Your task to perform on an android device: delete location history Image 0: 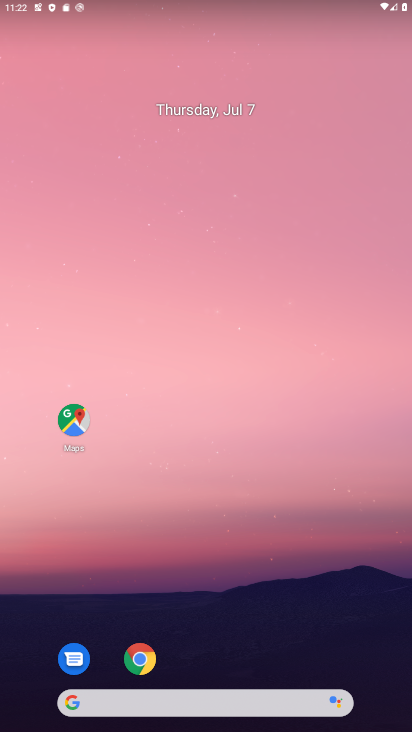
Step 0: click (72, 410)
Your task to perform on an android device: delete location history Image 1: 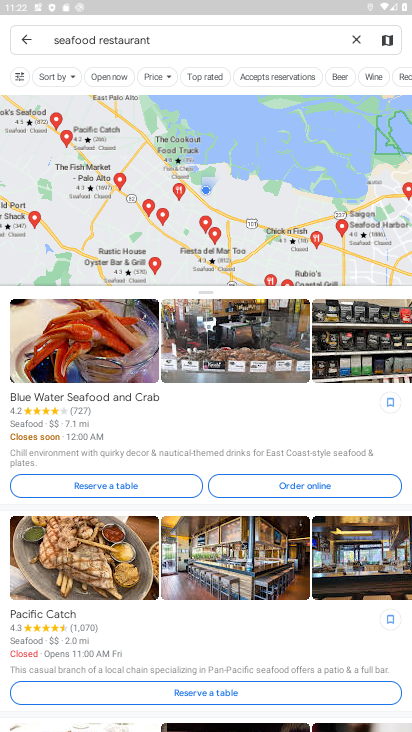
Step 1: click (27, 39)
Your task to perform on an android device: delete location history Image 2: 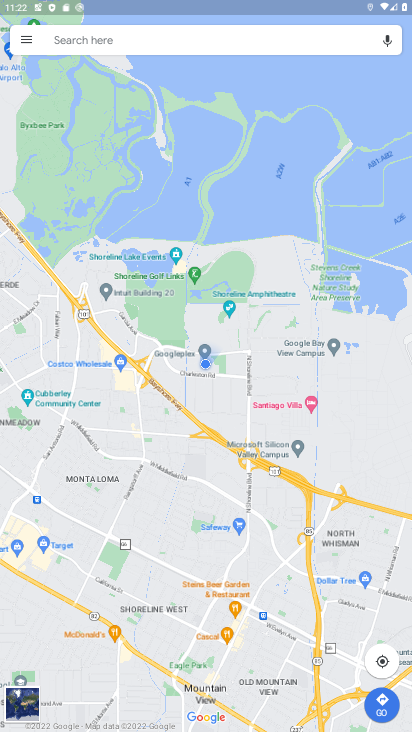
Step 2: click (31, 35)
Your task to perform on an android device: delete location history Image 3: 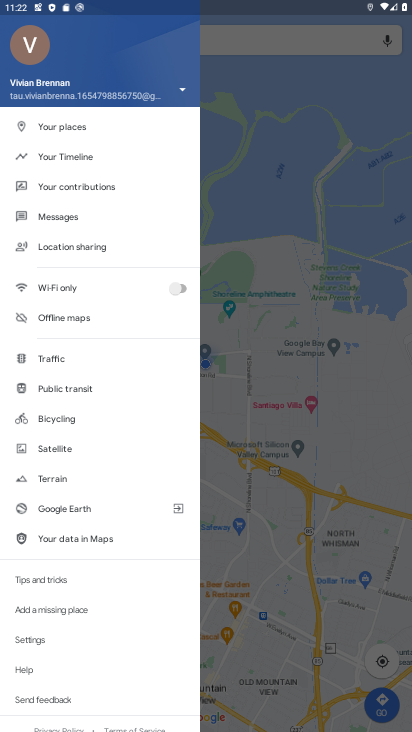
Step 3: click (79, 151)
Your task to perform on an android device: delete location history Image 4: 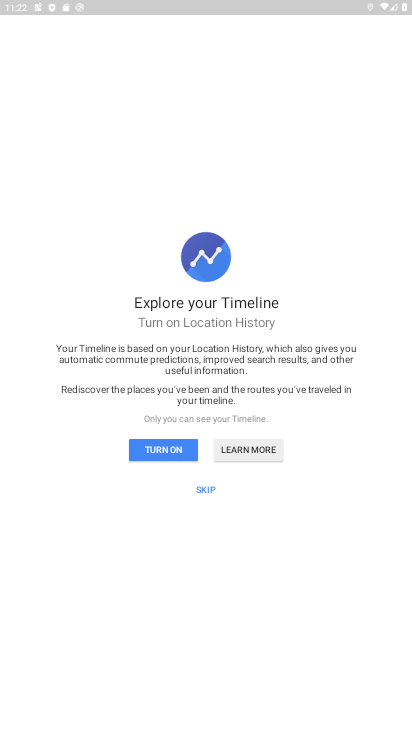
Step 4: click (166, 448)
Your task to perform on an android device: delete location history Image 5: 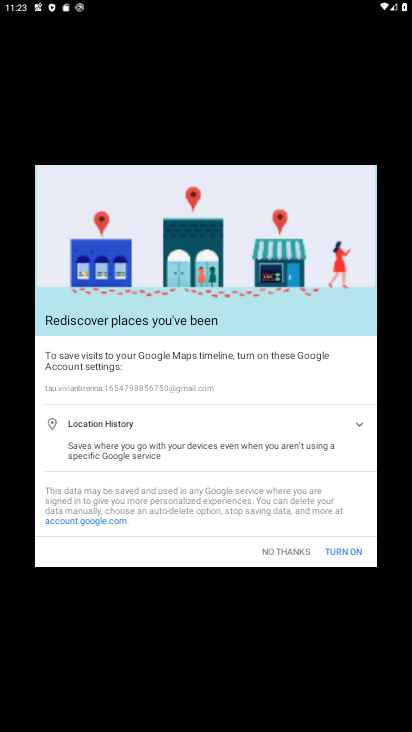
Step 5: click (288, 552)
Your task to perform on an android device: delete location history Image 6: 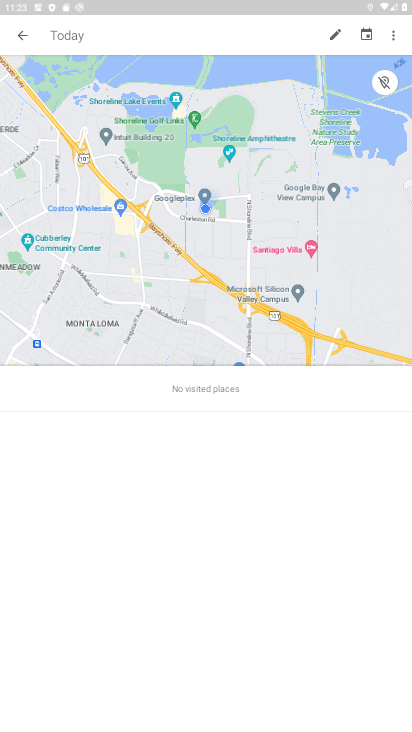
Step 6: click (400, 42)
Your task to perform on an android device: delete location history Image 7: 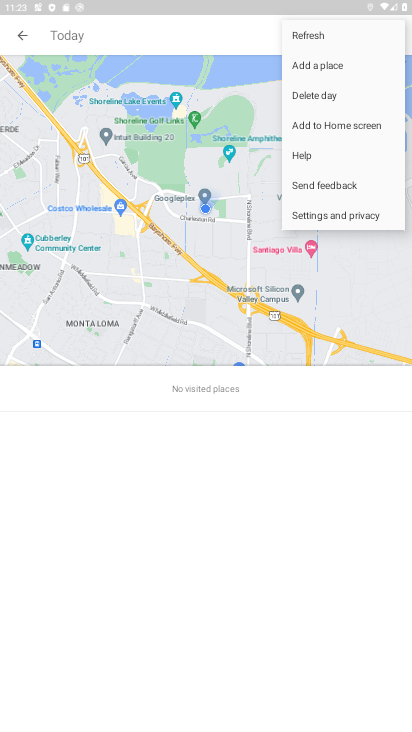
Step 7: click (308, 212)
Your task to perform on an android device: delete location history Image 8: 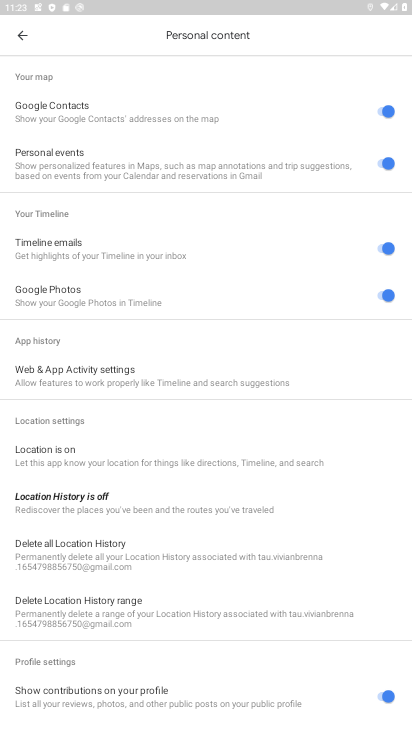
Step 8: click (177, 562)
Your task to perform on an android device: delete location history Image 9: 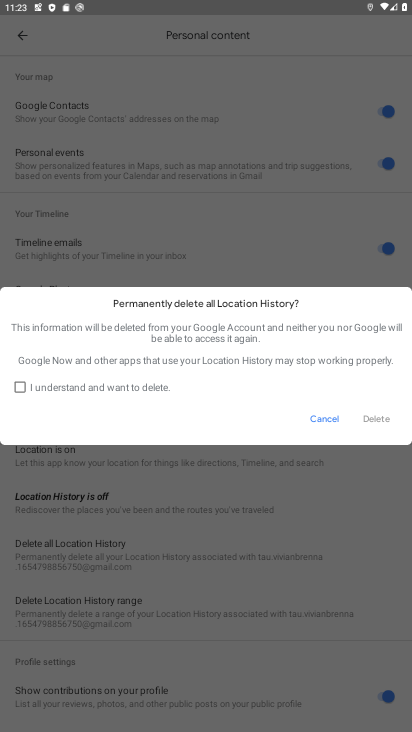
Step 9: click (18, 388)
Your task to perform on an android device: delete location history Image 10: 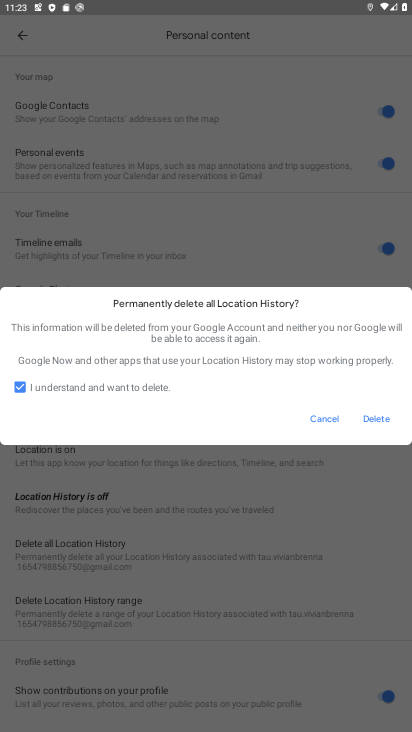
Step 10: click (382, 416)
Your task to perform on an android device: delete location history Image 11: 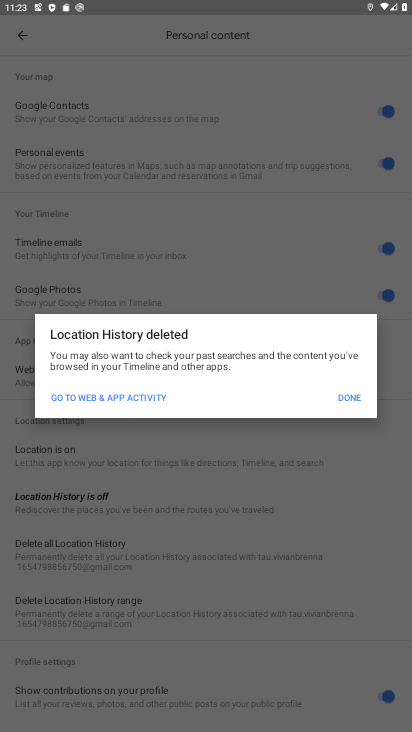
Step 11: click (350, 394)
Your task to perform on an android device: delete location history Image 12: 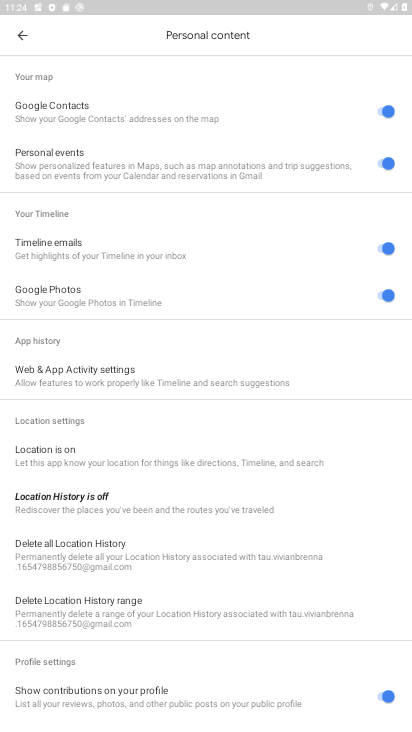
Step 12: click (116, 559)
Your task to perform on an android device: delete location history Image 13: 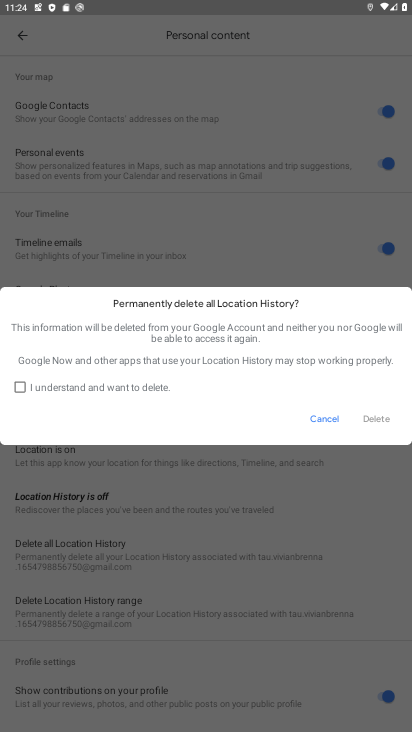
Step 13: task complete